Your task to perform on an android device: turn off location history Image 0: 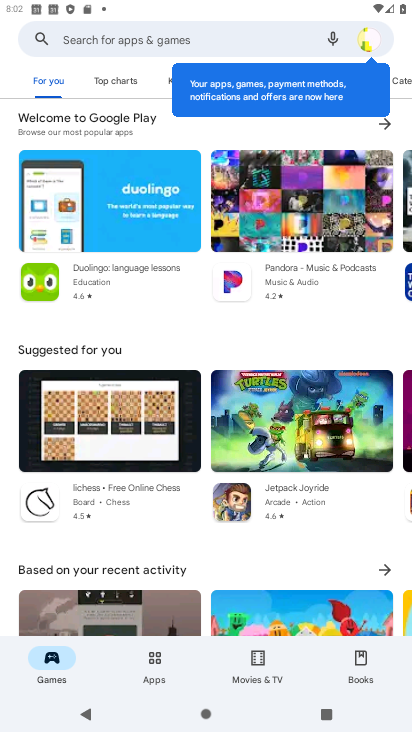
Step 0: press home button
Your task to perform on an android device: turn off location history Image 1: 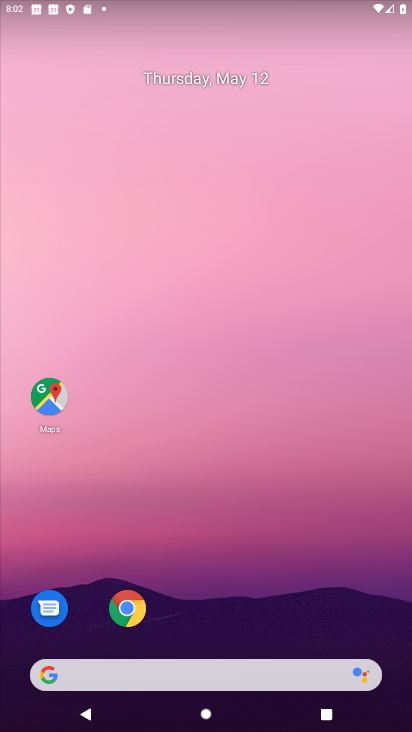
Step 1: drag from (274, 635) to (250, 341)
Your task to perform on an android device: turn off location history Image 2: 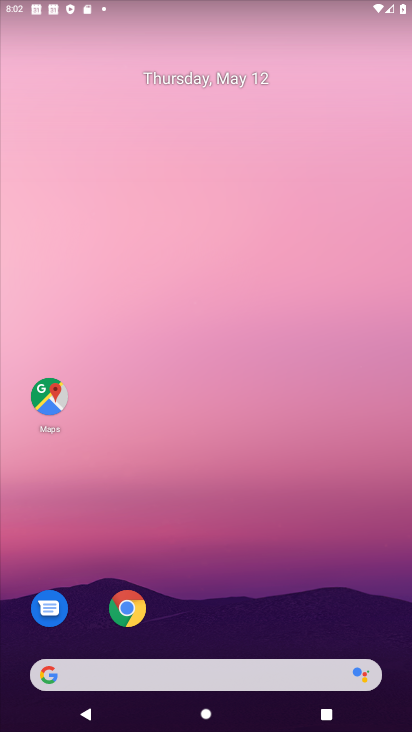
Step 2: drag from (204, 619) to (213, 215)
Your task to perform on an android device: turn off location history Image 3: 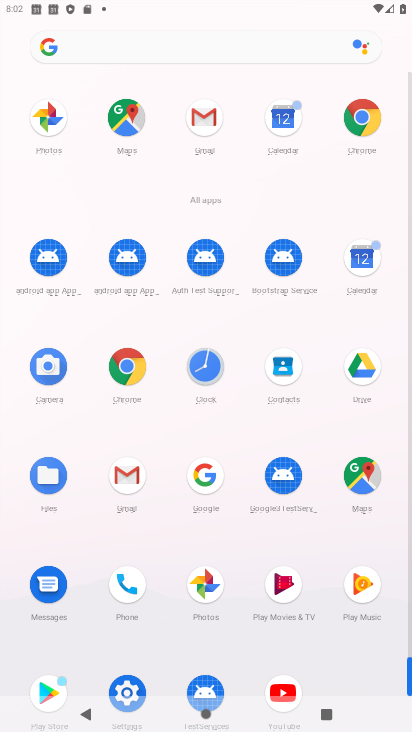
Step 3: click (128, 686)
Your task to perform on an android device: turn off location history Image 4: 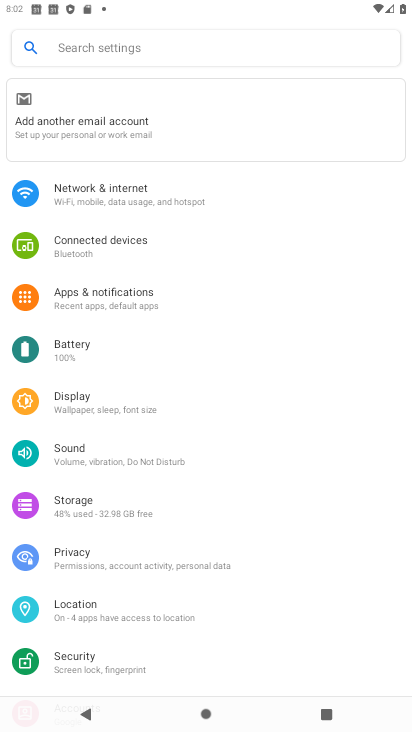
Step 4: click (86, 613)
Your task to perform on an android device: turn off location history Image 5: 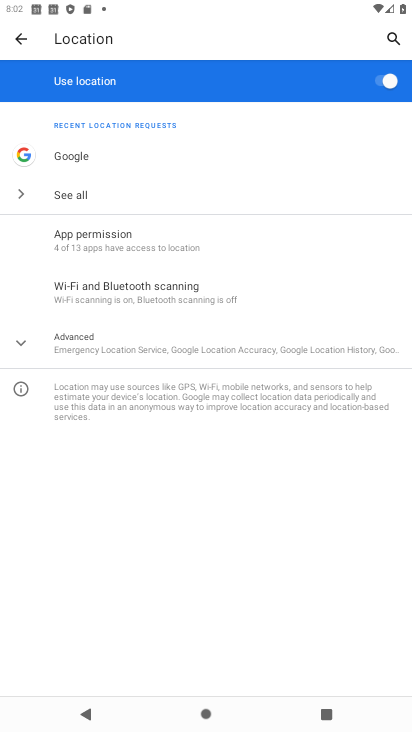
Step 5: click (72, 340)
Your task to perform on an android device: turn off location history Image 6: 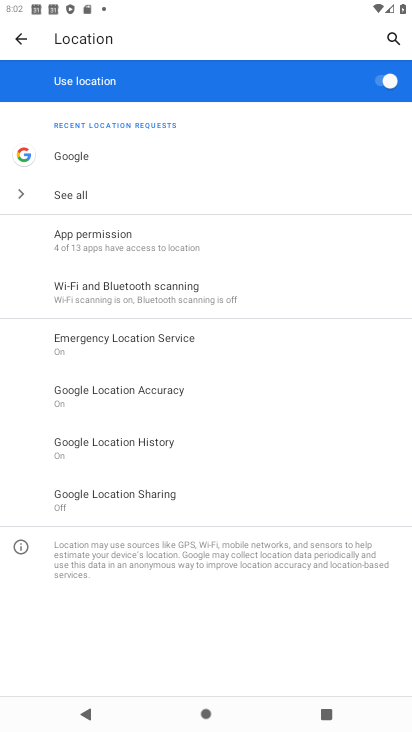
Step 6: click (129, 448)
Your task to perform on an android device: turn off location history Image 7: 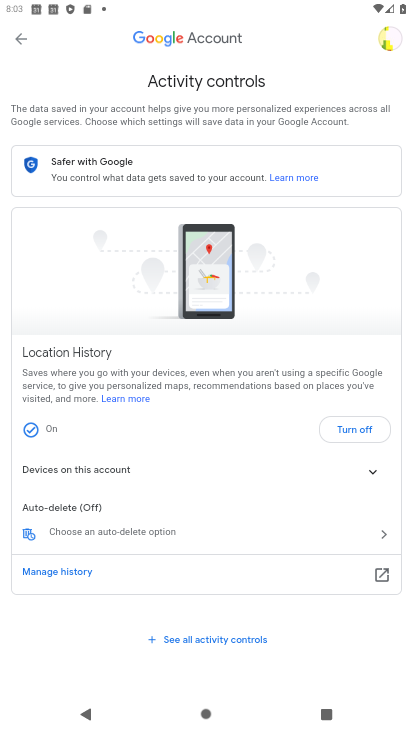
Step 7: click (360, 440)
Your task to perform on an android device: turn off location history Image 8: 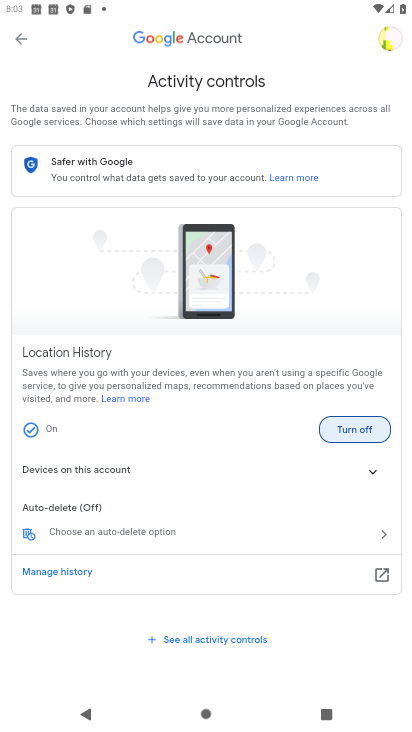
Step 8: click (352, 431)
Your task to perform on an android device: turn off location history Image 9: 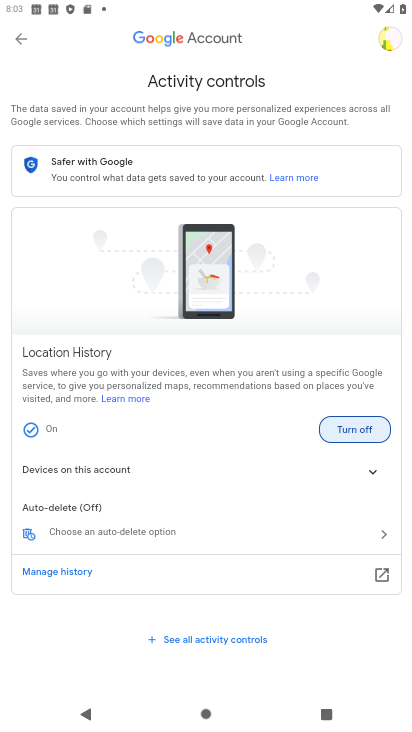
Step 9: click (369, 424)
Your task to perform on an android device: turn off location history Image 10: 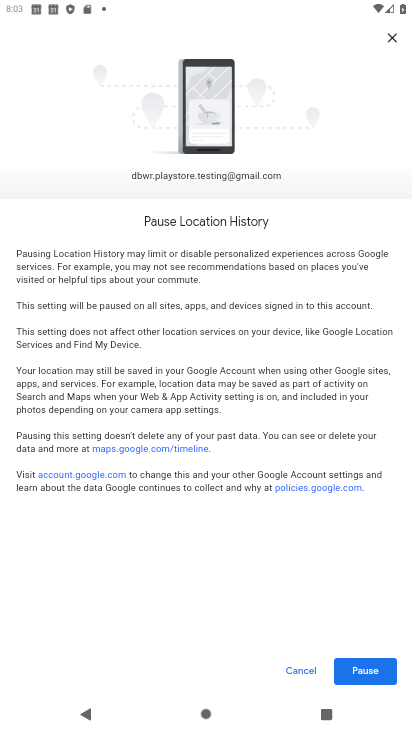
Step 10: click (370, 680)
Your task to perform on an android device: turn off location history Image 11: 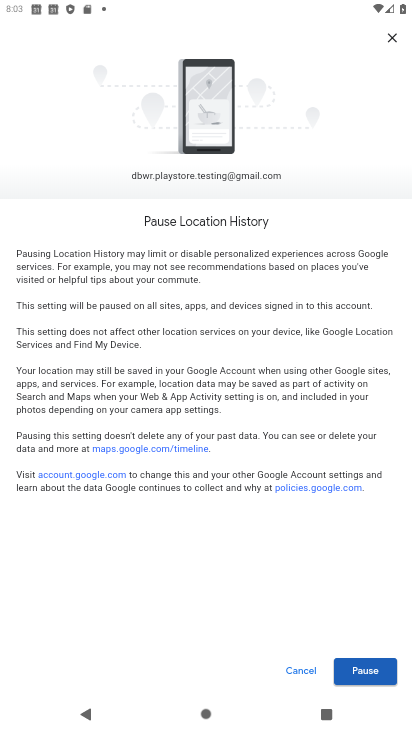
Step 11: click (360, 674)
Your task to perform on an android device: turn off location history Image 12: 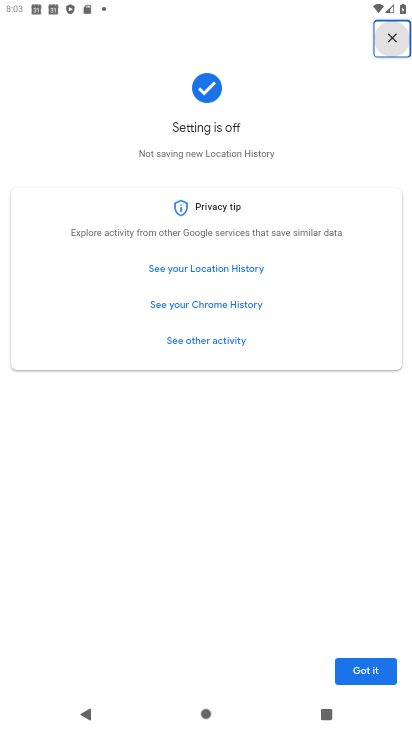
Step 12: click (360, 674)
Your task to perform on an android device: turn off location history Image 13: 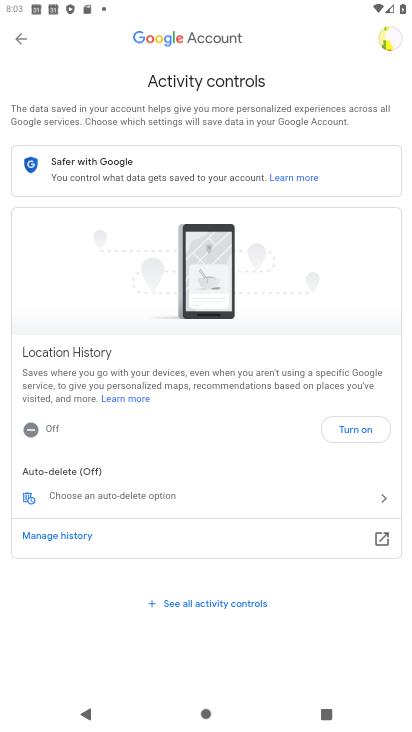
Step 13: task complete